Your task to perform on an android device: open app "Messenger Lite" Image 0: 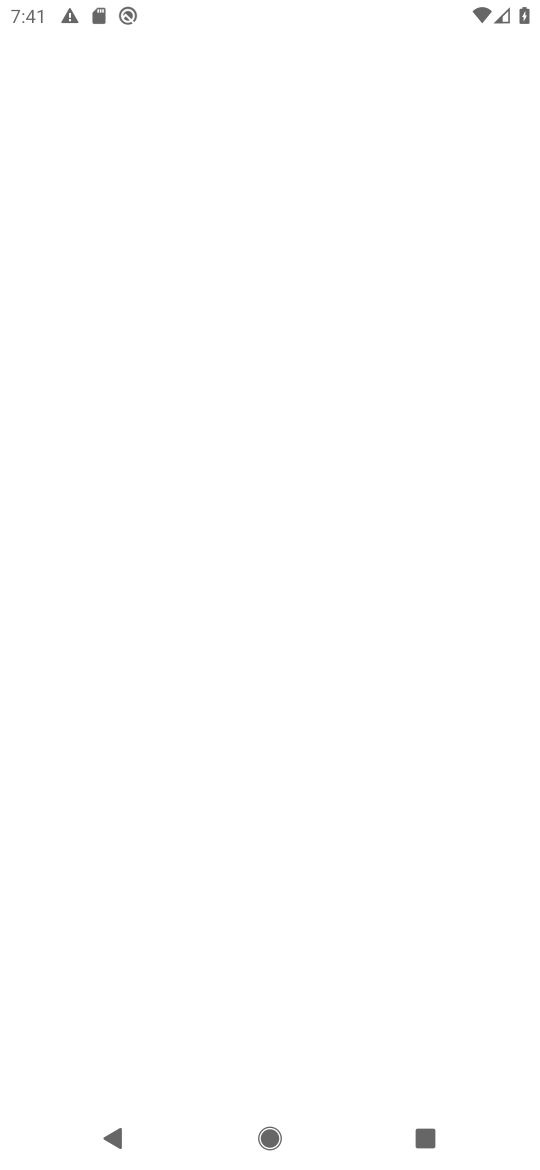
Step 0: press home button
Your task to perform on an android device: open app "Messenger Lite" Image 1: 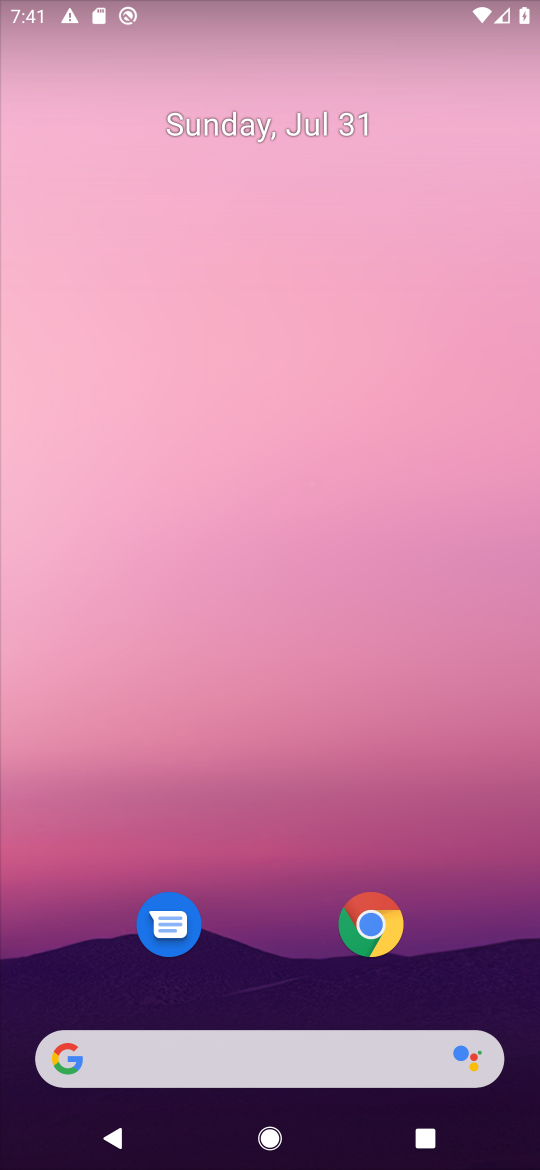
Step 1: drag from (237, 982) to (230, 589)
Your task to perform on an android device: open app "Messenger Lite" Image 2: 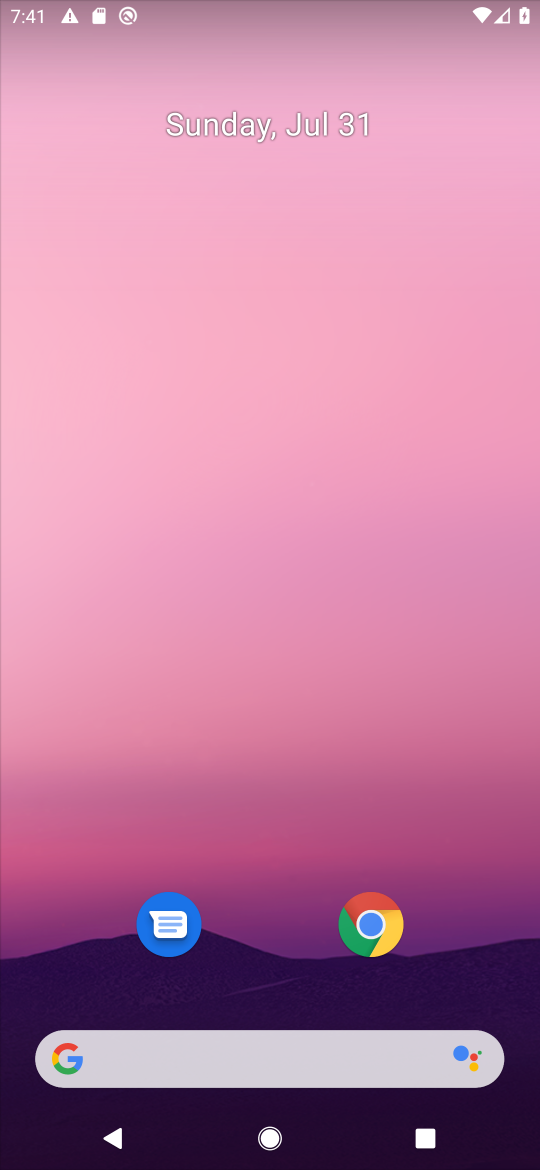
Step 2: drag from (253, 975) to (176, 305)
Your task to perform on an android device: open app "Messenger Lite" Image 3: 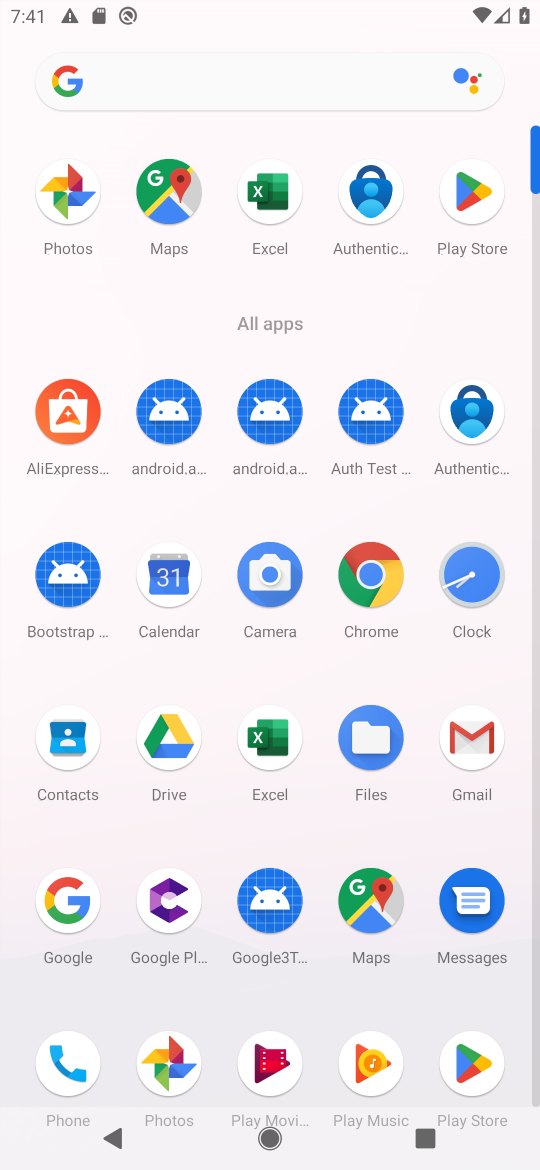
Step 3: click (480, 197)
Your task to perform on an android device: open app "Messenger Lite" Image 4: 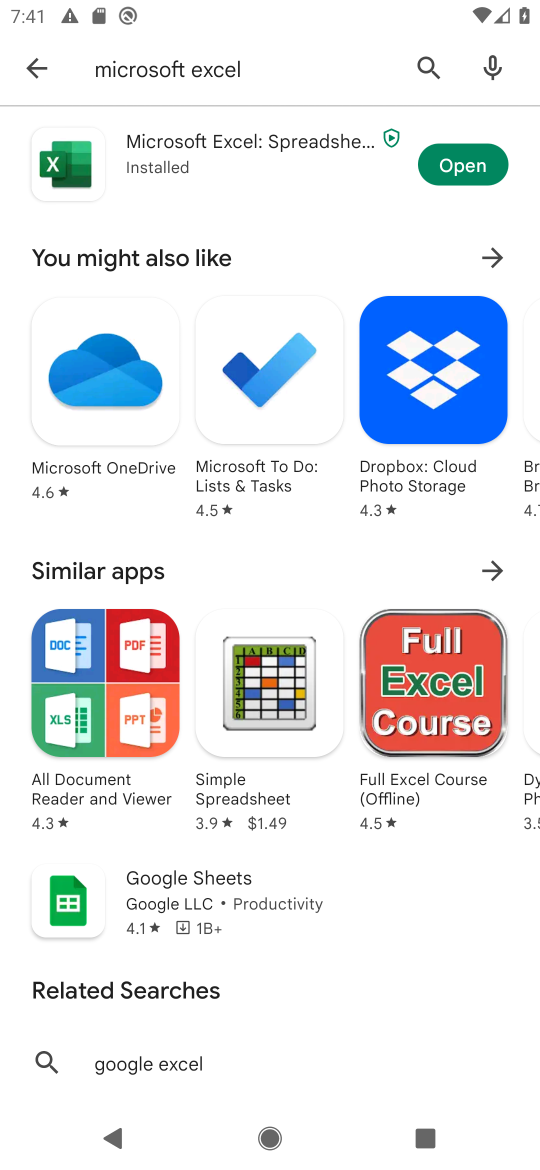
Step 4: click (430, 67)
Your task to perform on an android device: open app "Messenger Lite" Image 5: 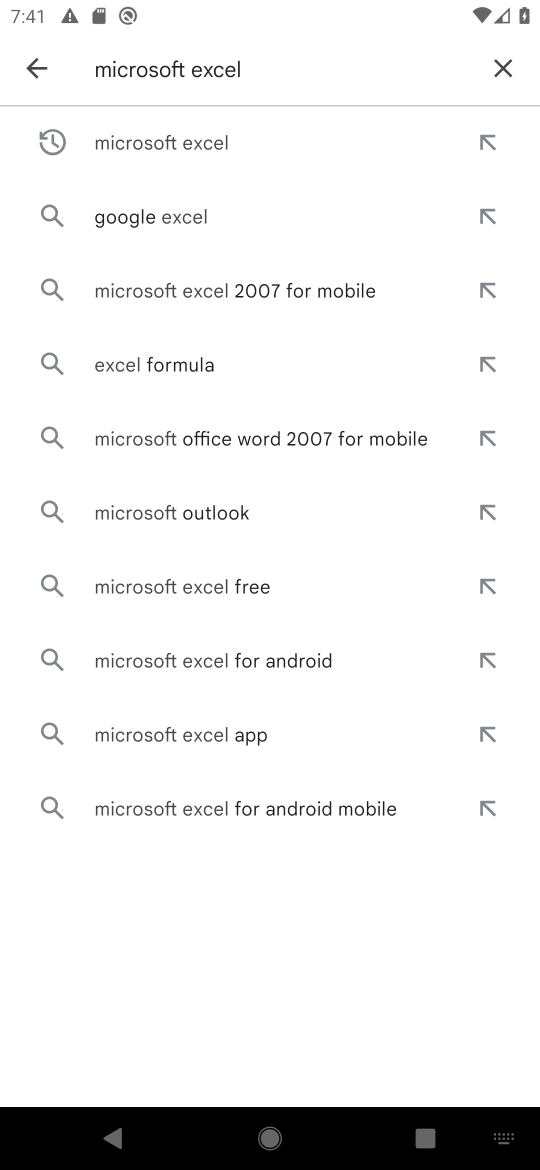
Step 5: click (338, 67)
Your task to perform on an android device: open app "Messenger Lite" Image 6: 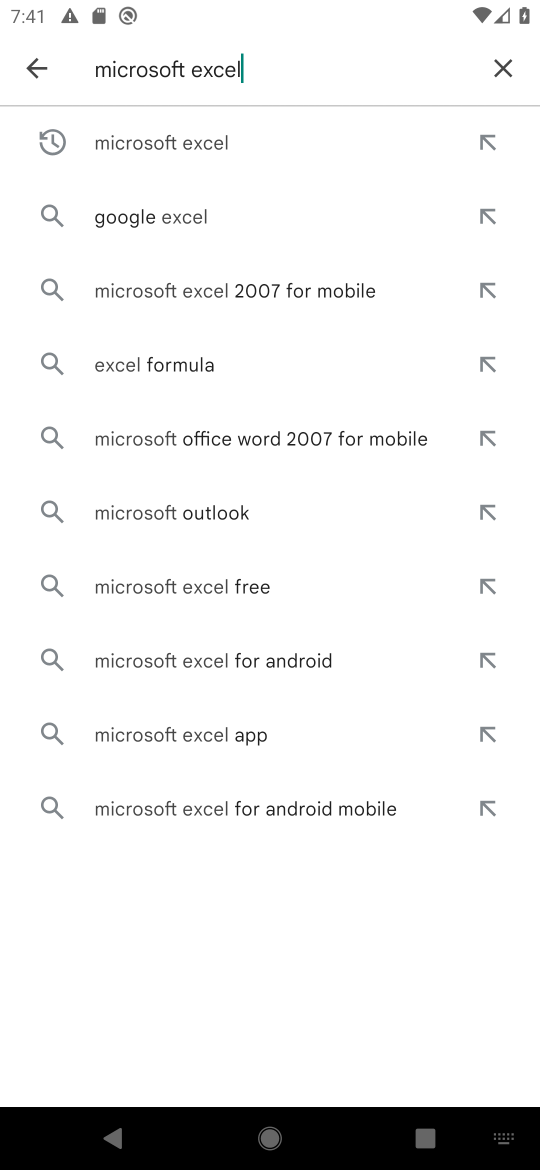
Step 6: click (502, 72)
Your task to perform on an android device: open app "Messenger Lite" Image 7: 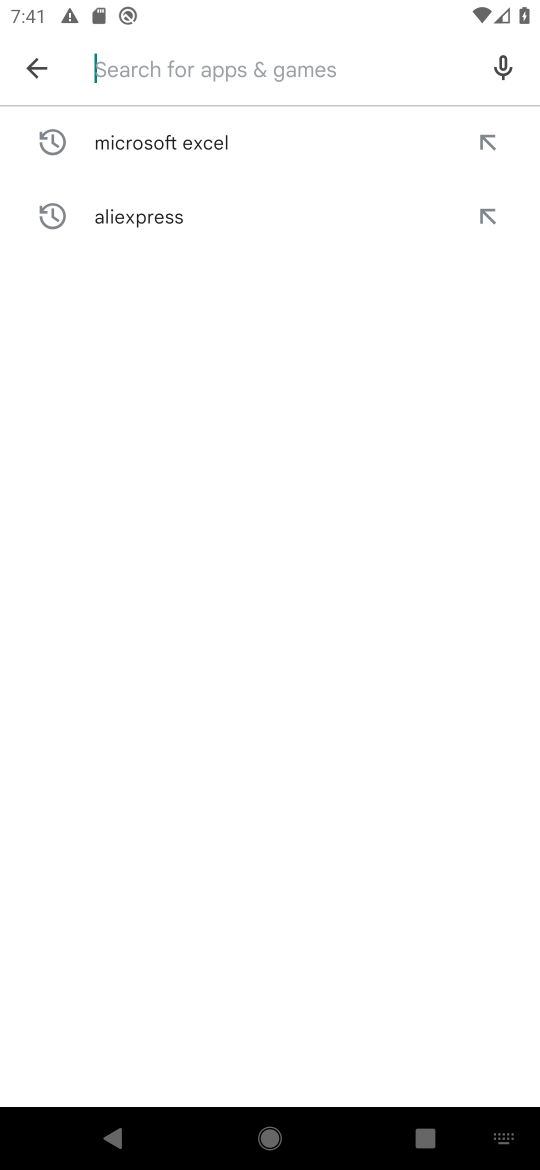
Step 7: type "Messenger Lite"
Your task to perform on an android device: open app "Messenger Lite" Image 8: 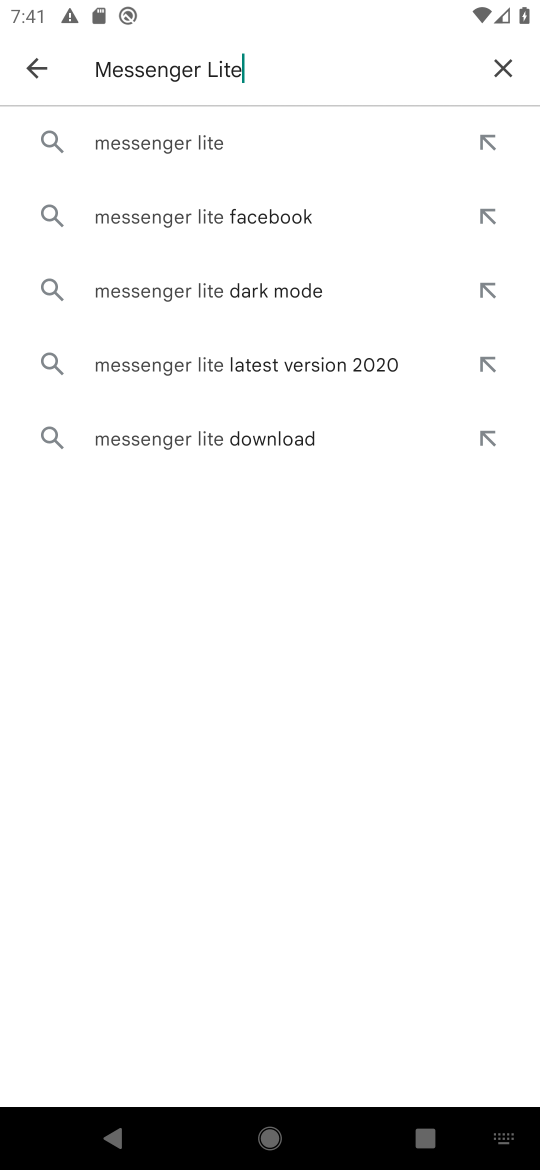
Step 8: click (122, 140)
Your task to perform on an android device: open app "Messenger Lite" Image 9: 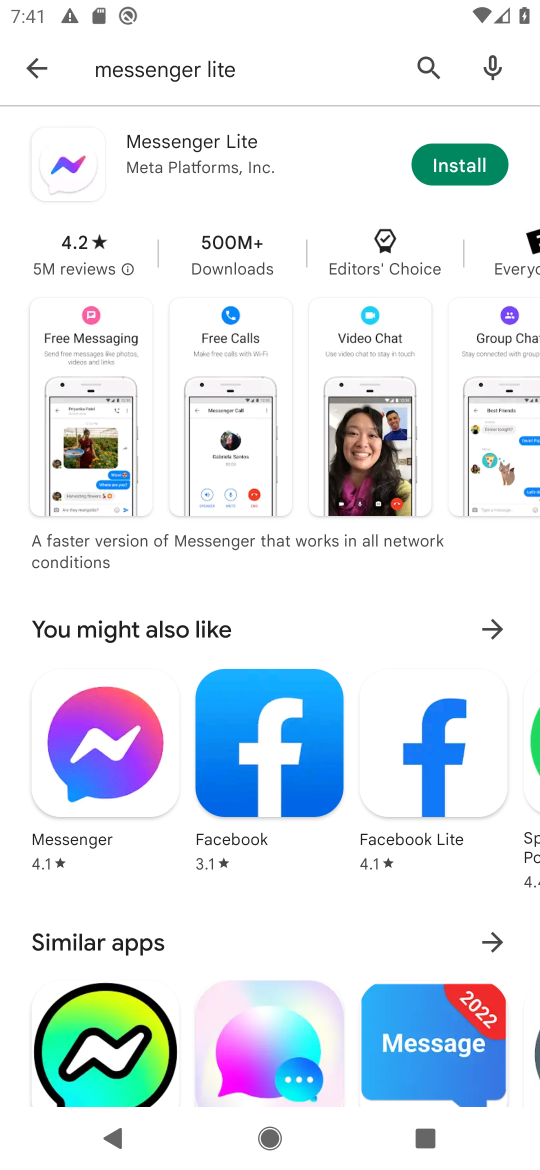
Step 9: click (489, 160)
Your task to perform on an android device: open app "Messenger Lite" Image 10: 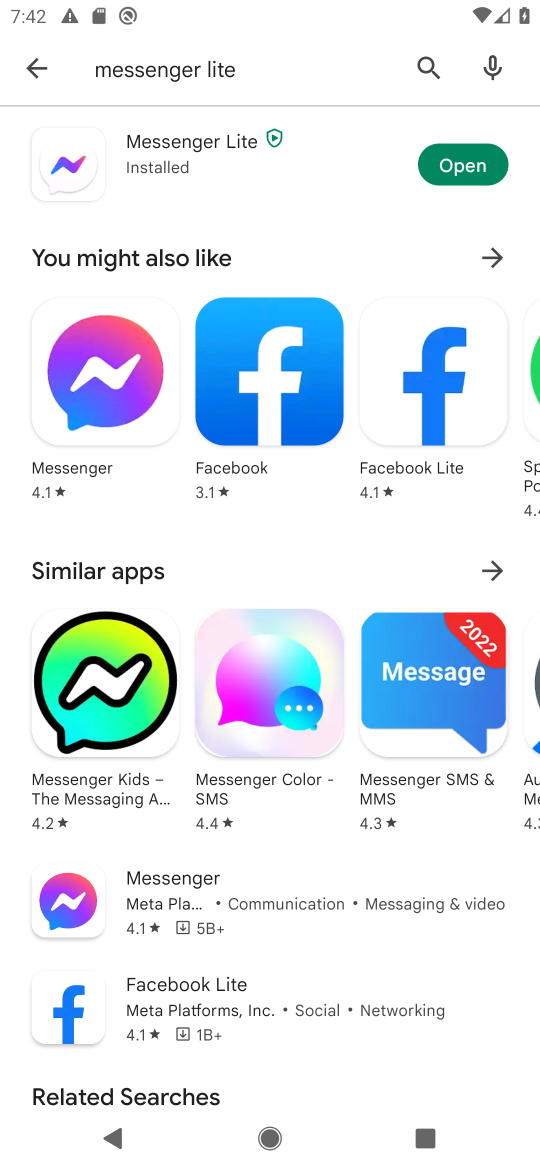
Step 10: click (496, 167)
Your task to perform on an android device: open app "Messenger Lite" Image 11: 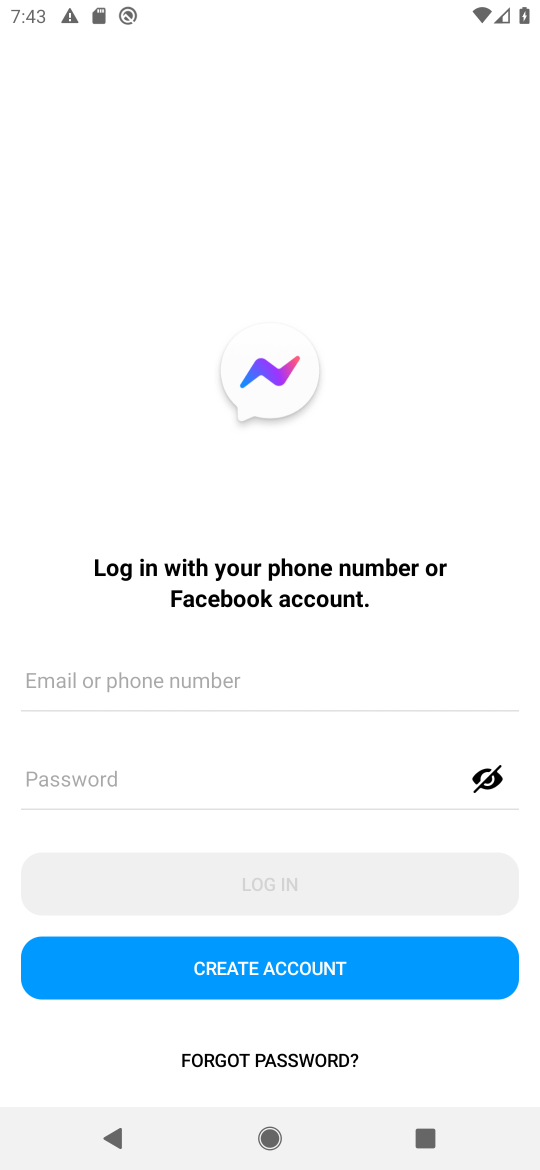
Step 11: task complete